Your task to perform on an android device: turn vacation reply on in the gmail app Image 0: 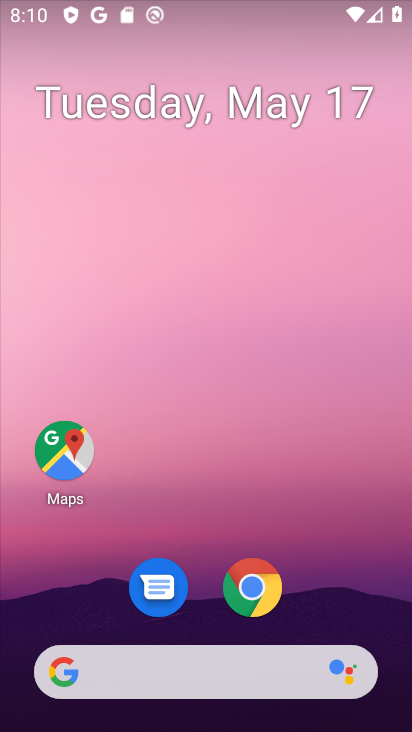
Step 0: drag from (69, 427) to (277, 118)
Your task to perform on an android device: turn vacation reply on in the gmail app Image 1: 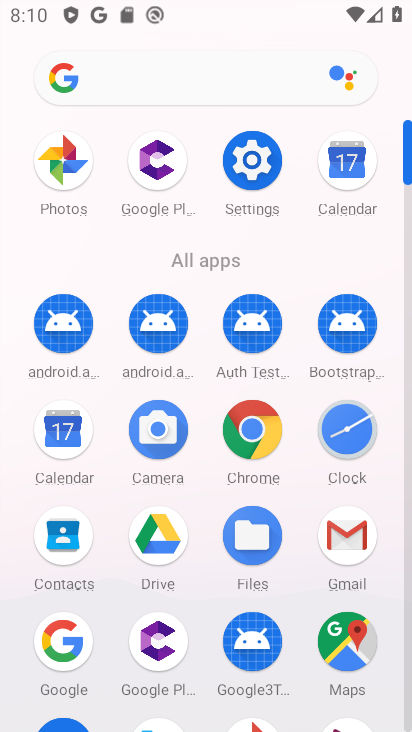
Step 1: click (344, 538)
Your task to perform on an android device: turn vacation reply on in the gmail app Image 2: 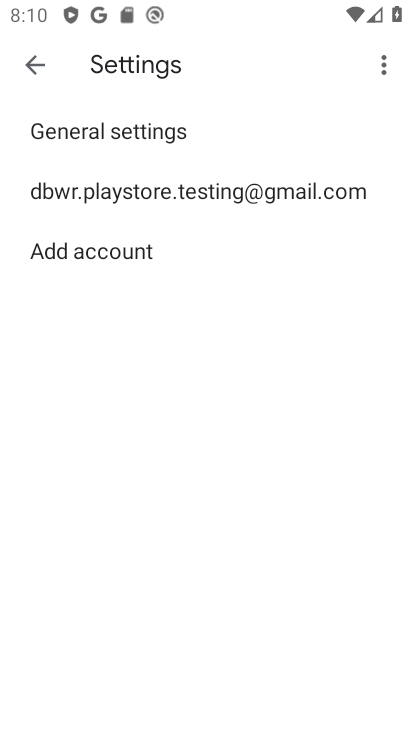
Step 2: click (109, 191)
Your task to perform on an android device: turn vacation reply on in the gmail app Image 3: 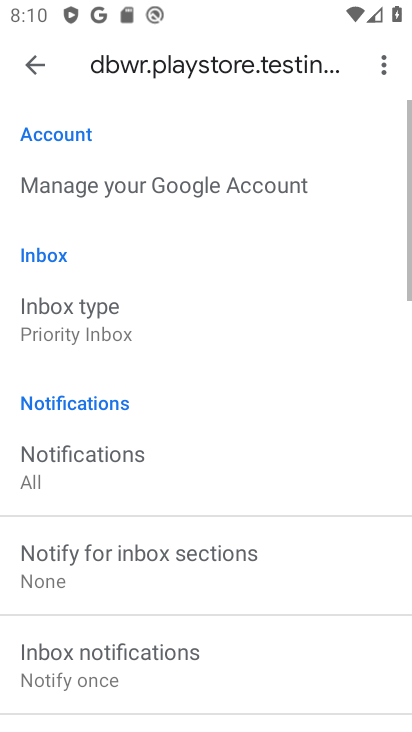
Step 3: drag from (112, 656) to (291, 171)
Your task to perform on an android device: turn vacation reply on in the gmail app Image 4: 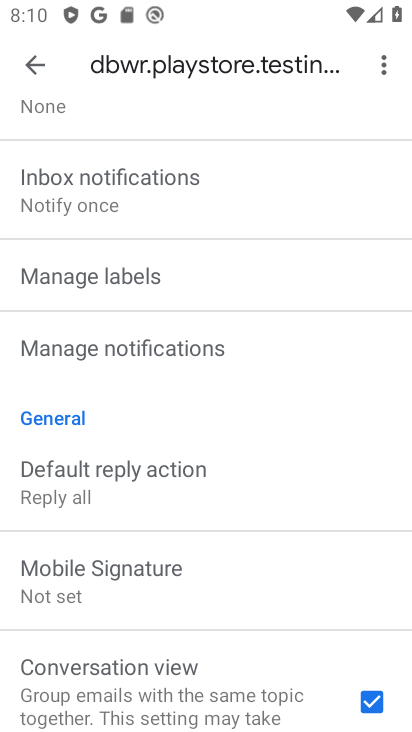
Step 4: drag from (92, 482) to (259, 169)
Your task to perform on an android device: turn vacation reply on in the gmail app Image 5: 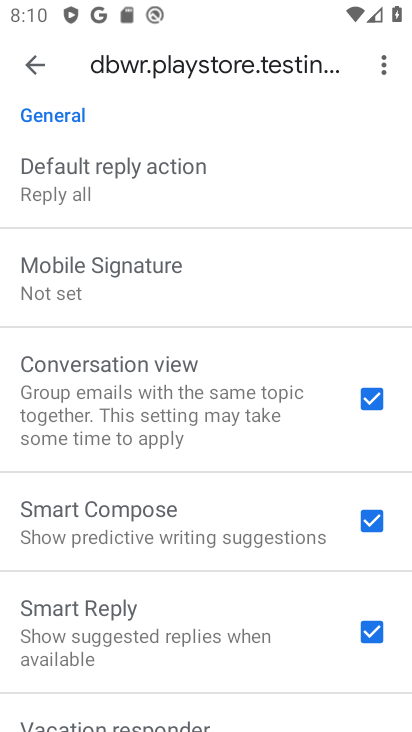
Step 5: drag from (19, 549) to (198, 231)
Your task to perform on an android device: turn vacation reply on in the gmail app Image 6: 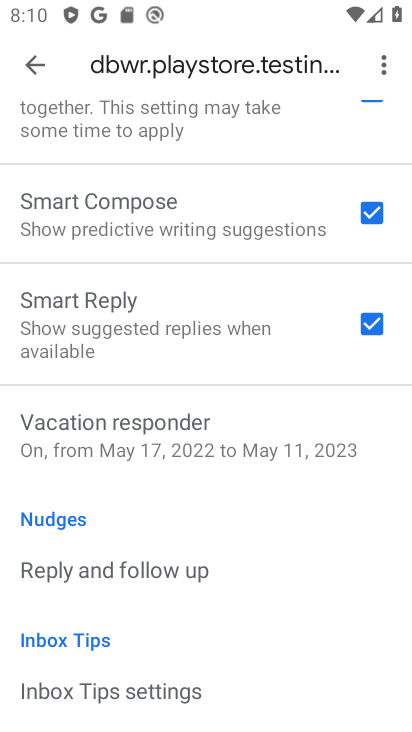
Step 6: click (142, 439)
Your task to perform on an android device: turn vacation reply on in the gmail app Image 7: 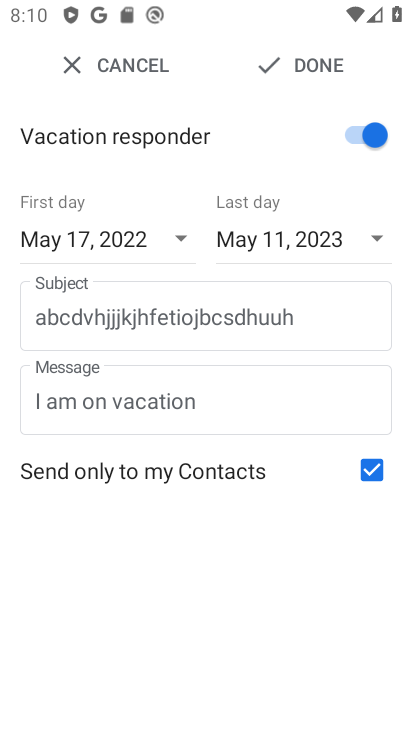
Step 7: click (301, 57)
Your task to perform on an android device: turn vacation reply on in the gmail app Image 8: 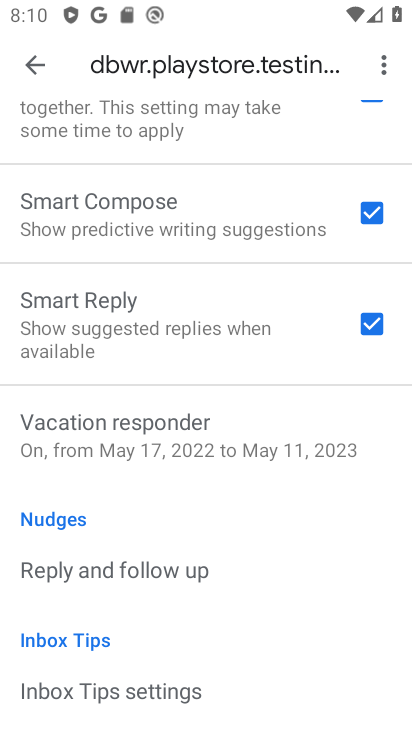
Step 8: task complete